Your task to perform on an android device: turn on airplane mode Image 0: 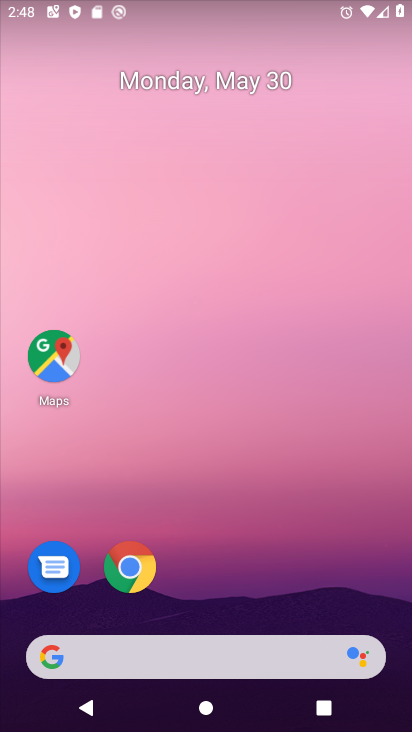
Step 0: drag from (200, 564) to (257, 32)
Your task to perform on an android device: turn on airplane mode Image 1: 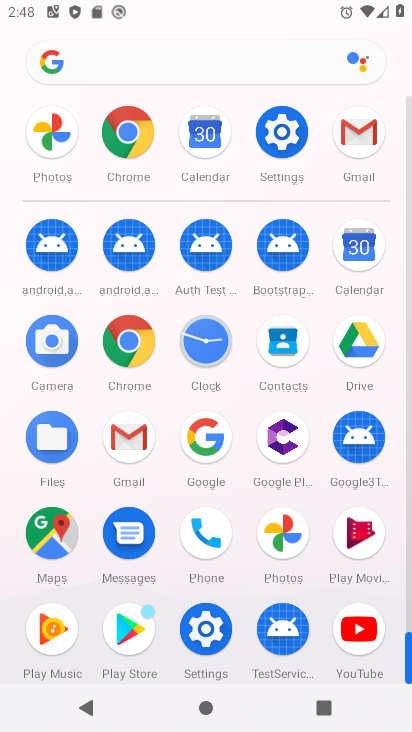
Step 1: click (290, 151)
Your task to perform on an android device: turn on airplane mode Image 2: 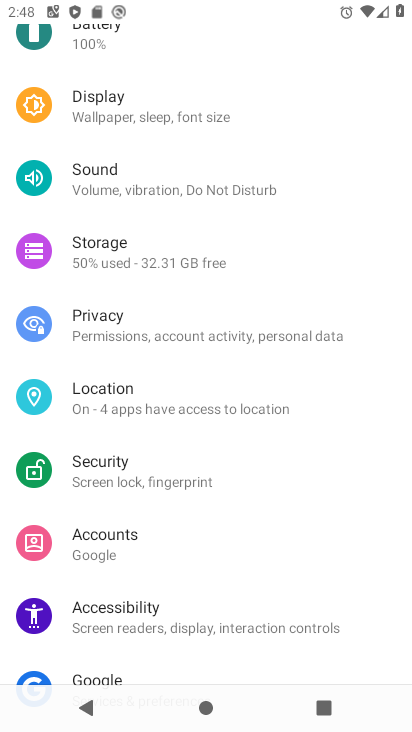
Step 2: drag from (144, 450) to (148, 527)
Your task to perform on an android device: turn on airplane mode Image 3: 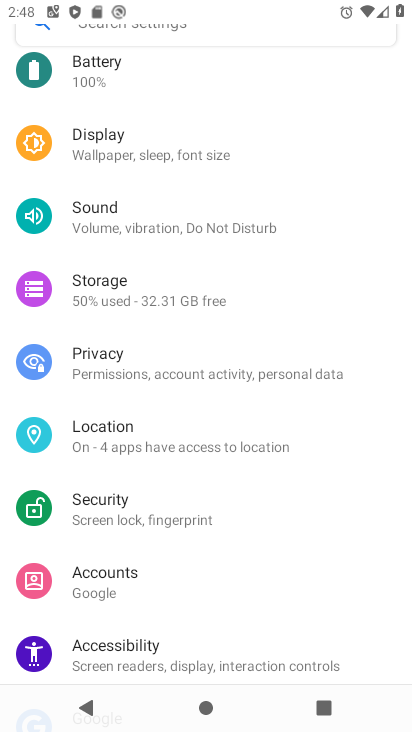
Step 3: drag from (211, 178) to (222, 344)
Your task to perform on an android device: turn on airplane mode Image 4: 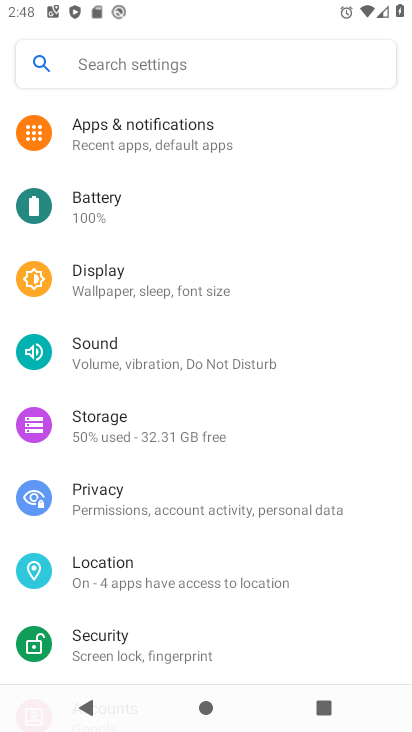
Step 4: drag from (208, 179) to (230, 471)
Your task to perform on an android device: turn on airplane mode Image 5: 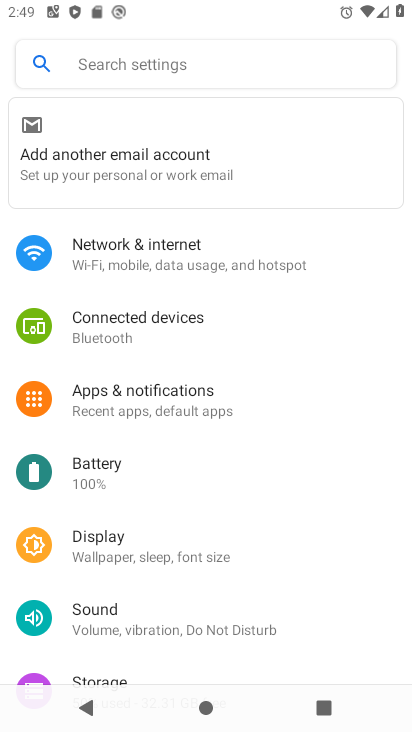
Step 5: click (200, 268)
Your task to perform on an android device: turn on airplane mode Image 6: 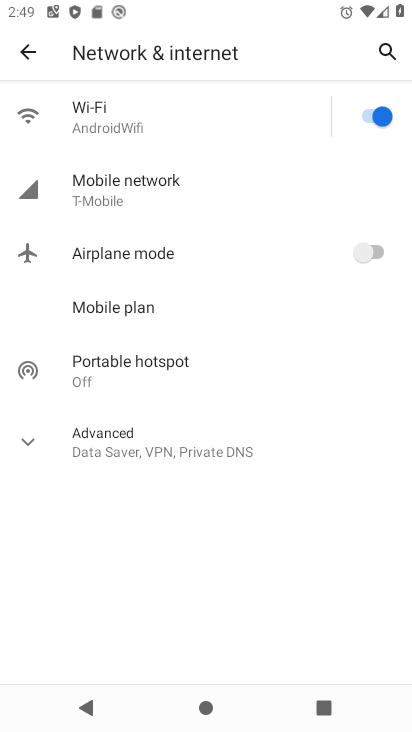
Step 6: click (333, 255)
Your task to perform on an android device: turn on airplane mode Image 7: 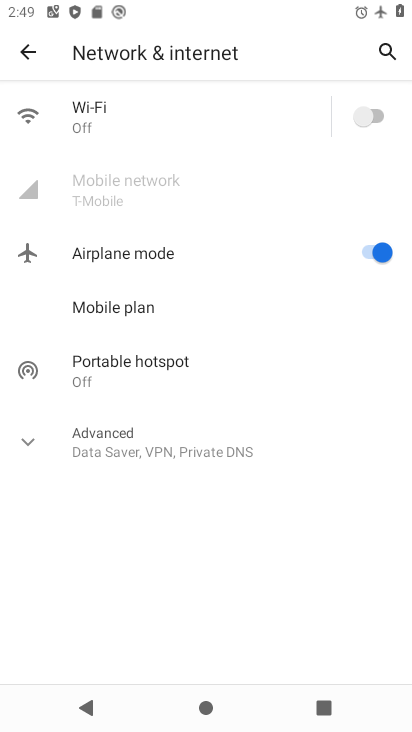
Step 7: task complete